Your task to perform on an android device: turn off notifications settings in the gmail app Image 0: 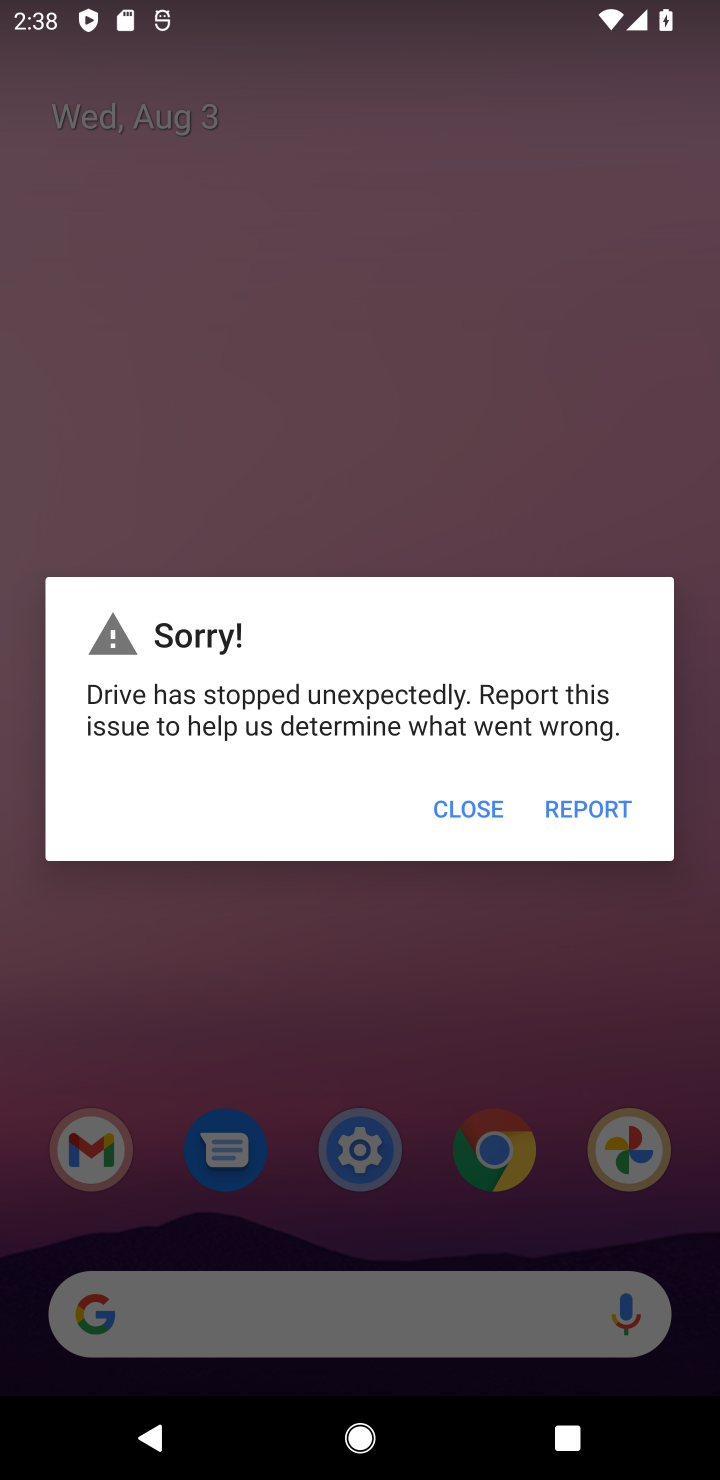
Step 0: press back button
Your task to perform on an android device: turn off notifications settings in the gmail app Image 1: 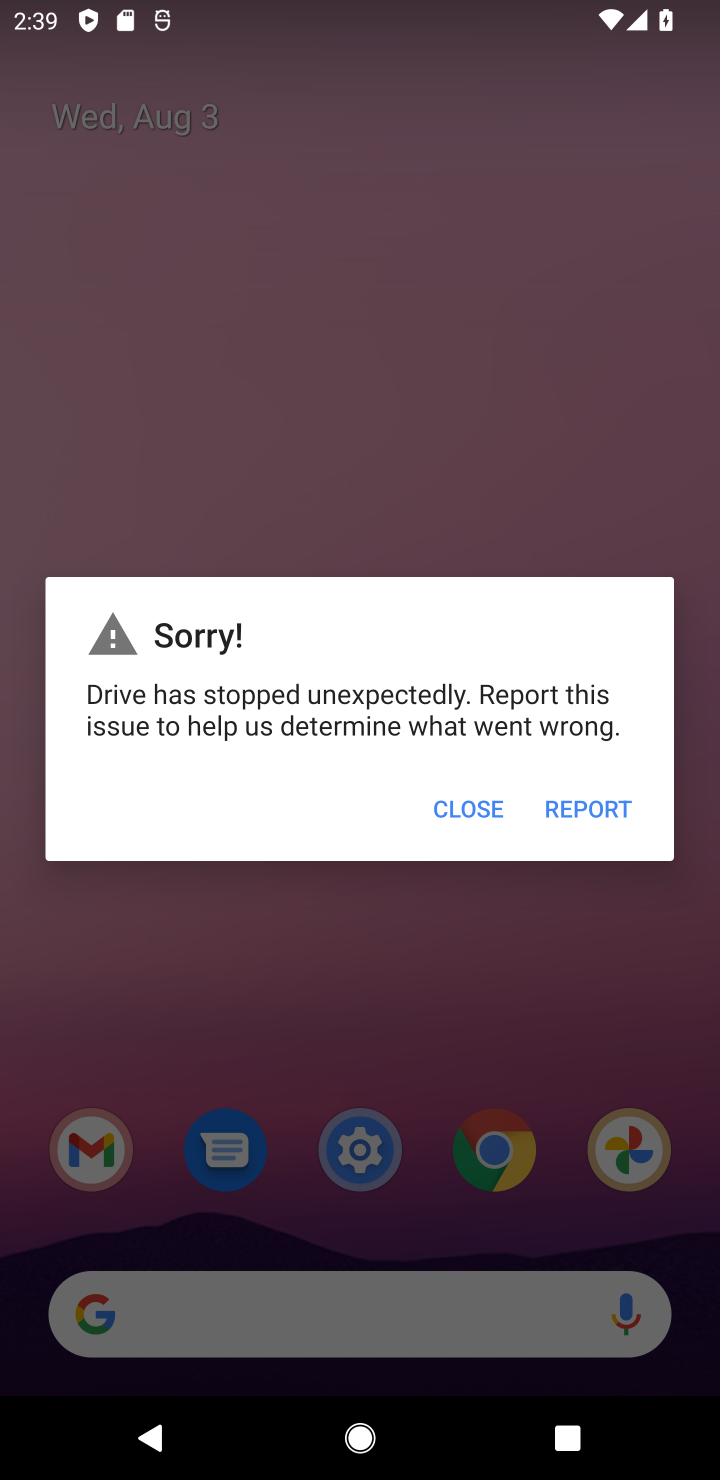
Step 1: click (457, 821)
Your task to perform on an android device: turn off notifications settings in the gmail app Image 2: 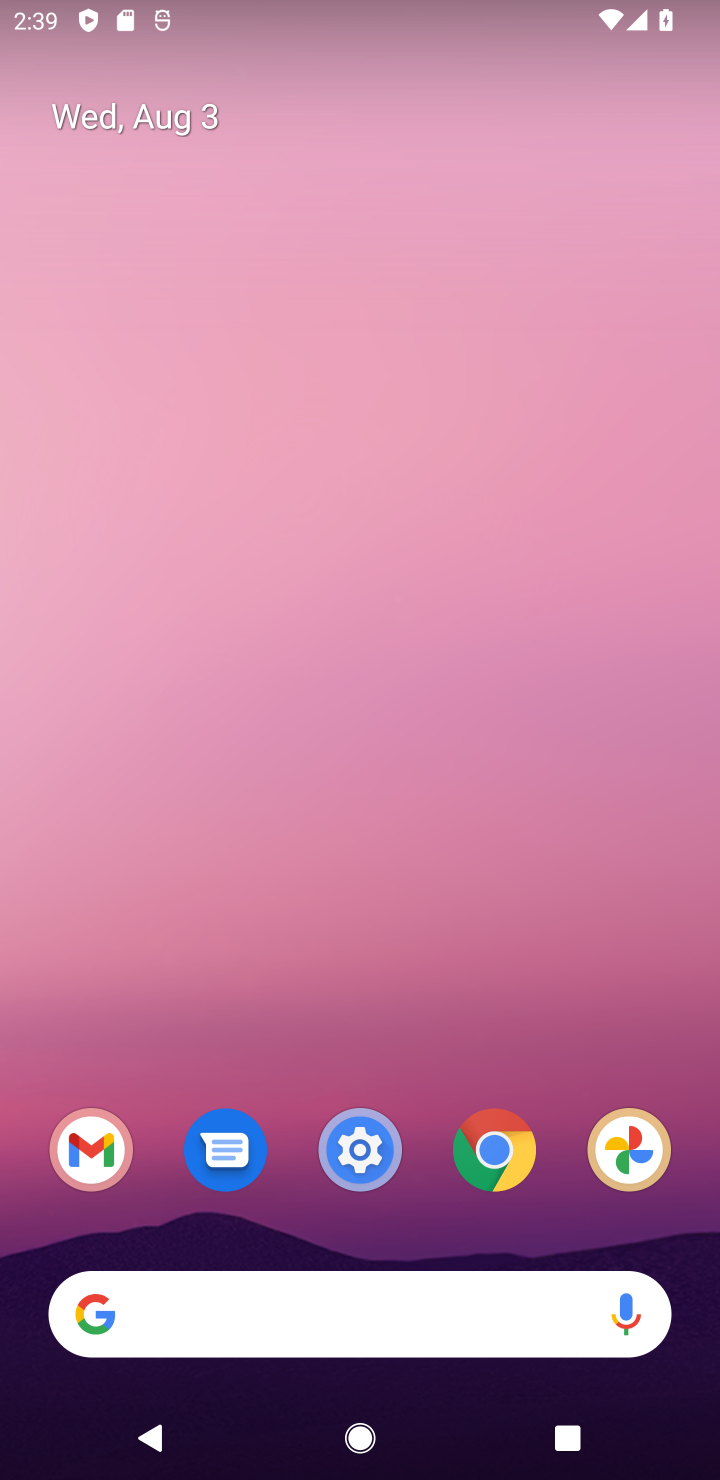
Step 2: click (100, 1191)
Your task to perform on an android device: turn off notifications settings in the gmail app Image 3: 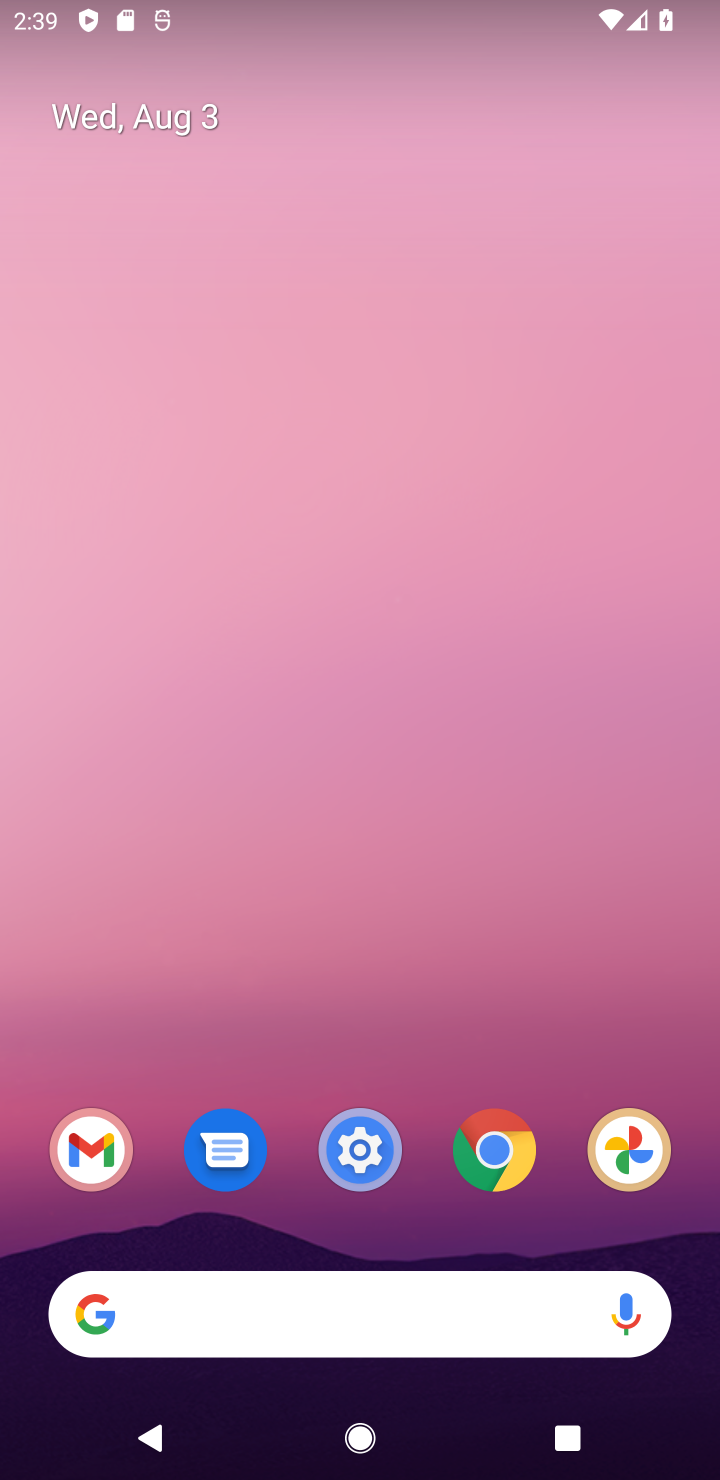
Step 3: click (76, 1149)
Your task to perform on an android device: turn off notifications settings in the gmail app Image 4: 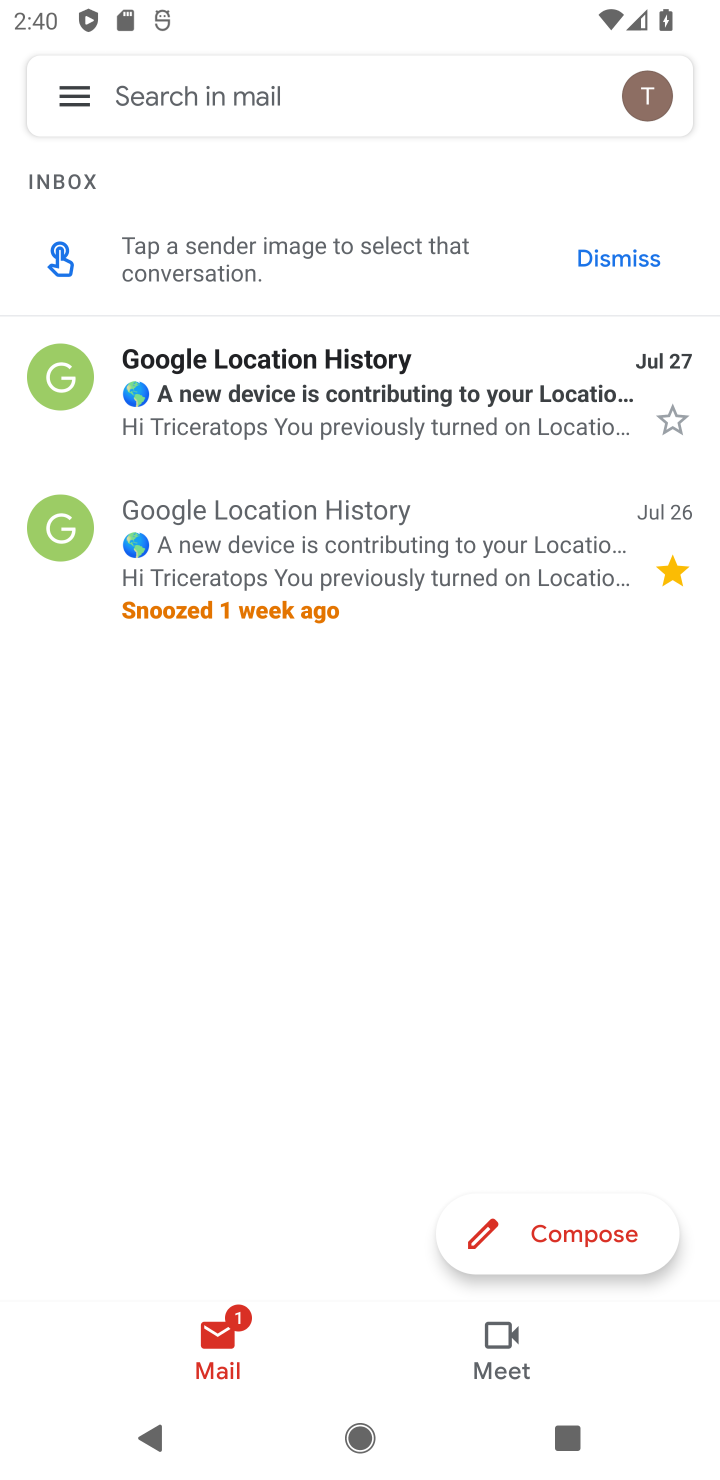
Step 4: click (72, 91)
Your task to perform on an android device: turn off notifications settings in the gmail app Image 5: 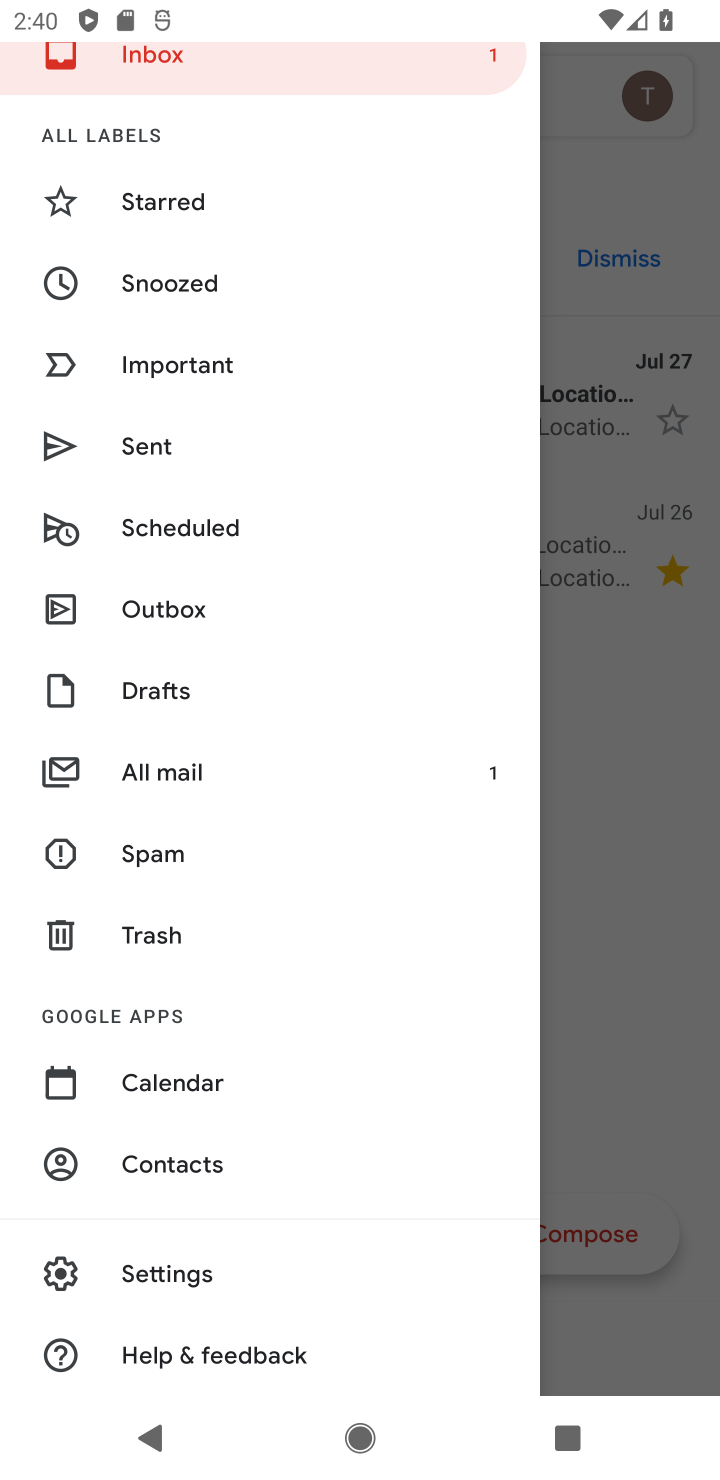
Step 5: click (181, 1268)
Your task to perform on an android device: turn off notifications settings in the gmail app Image 6: 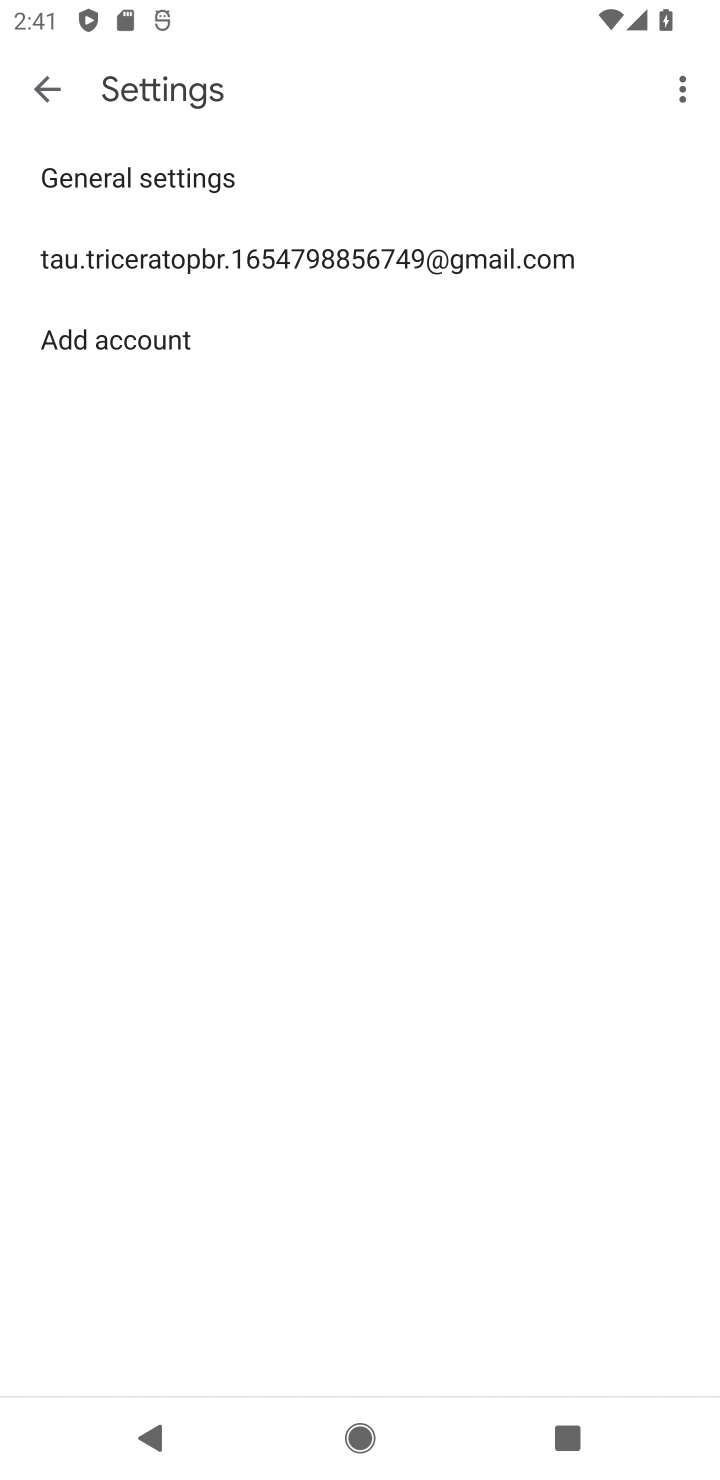
Step 6: click (232, 254)
Your task to perform on an android device: turn off notifications settings in the gmail app Image 7: 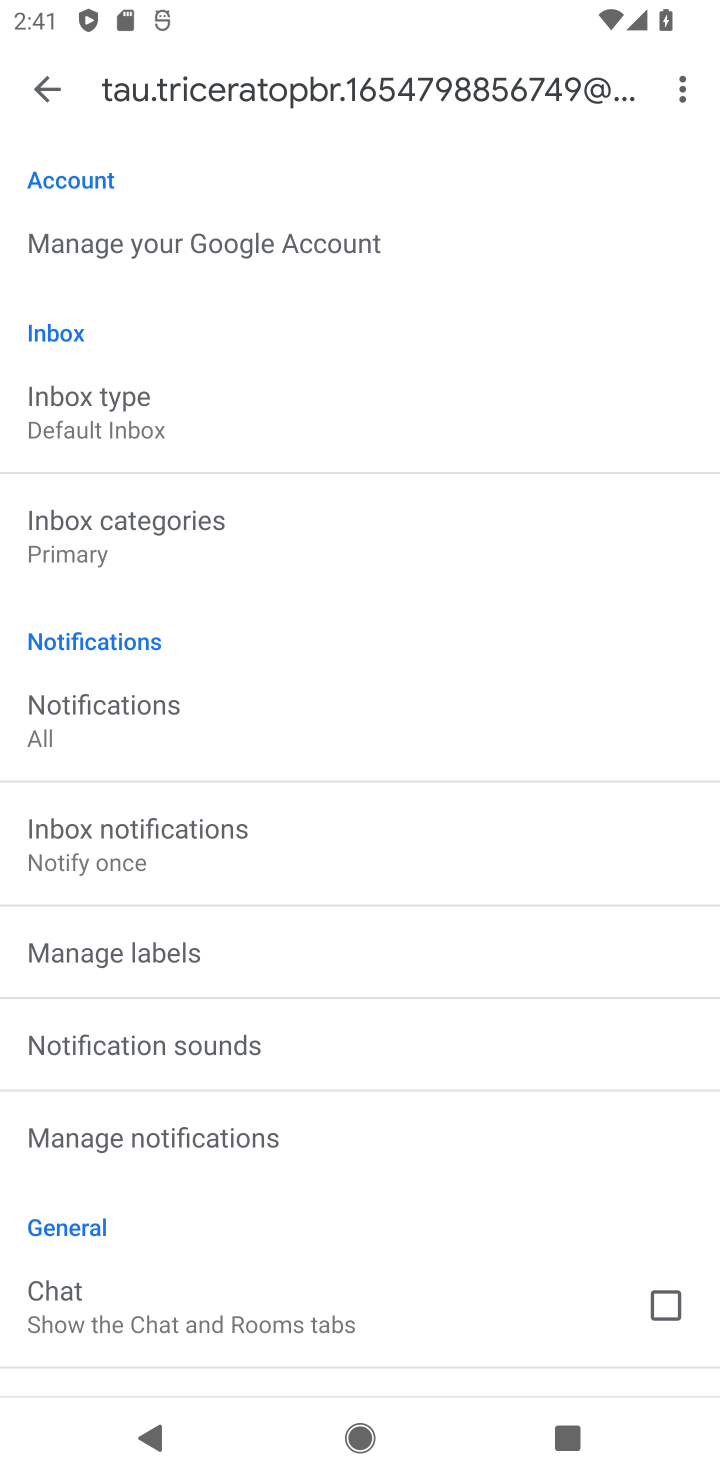
Step 7: click (181, 1117)
Your task to perform on an android device: turn off notifications settings in the gmail app Image 8: 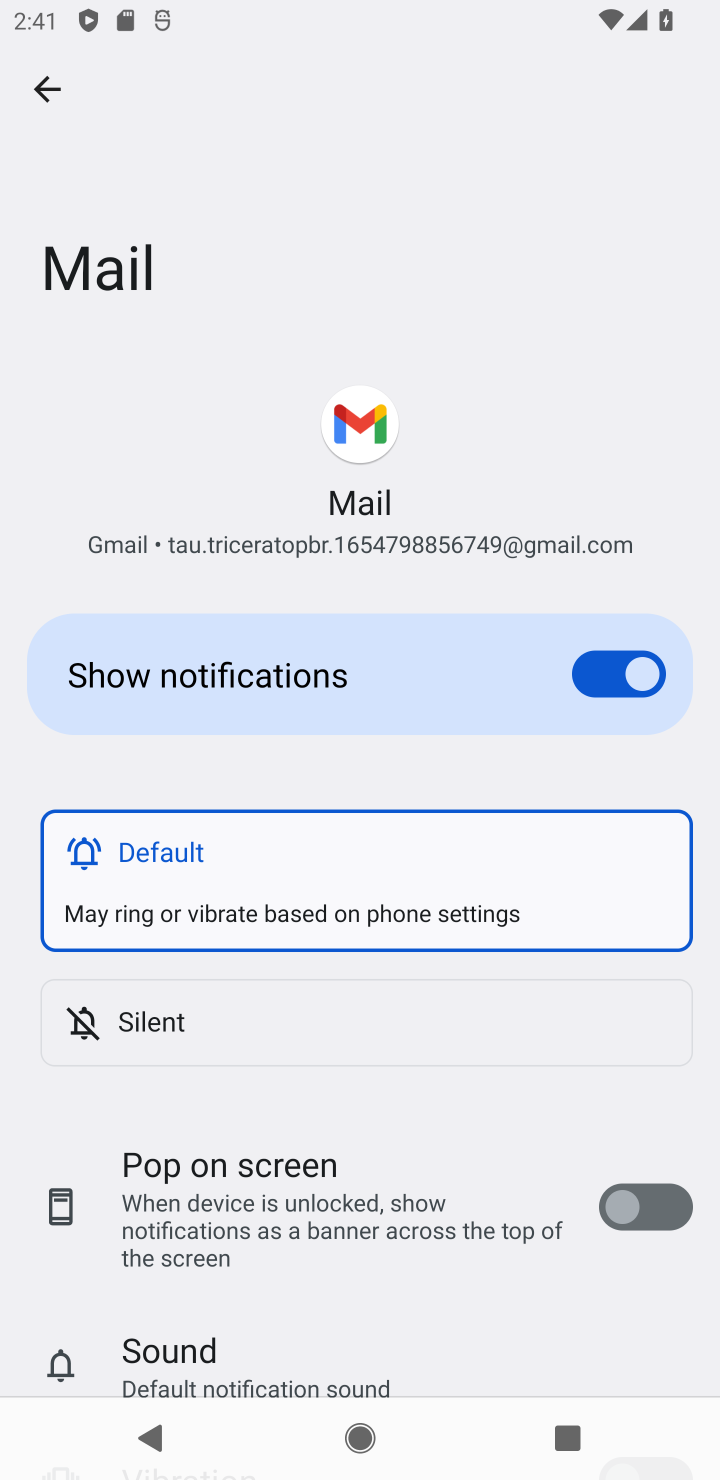
Step 8: click (630, 677)
Your task to perform on an android device: turn off notifications settings in the gmail app Image 9: 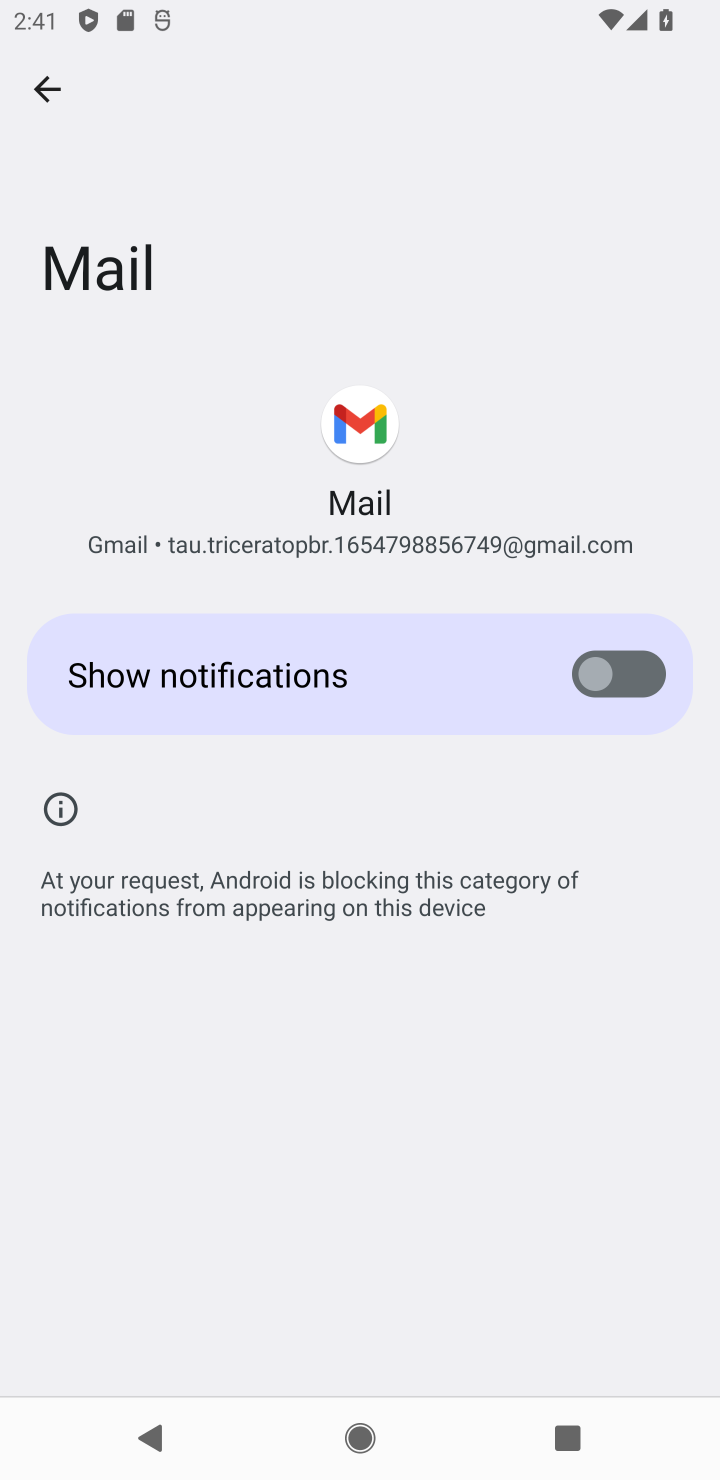
Step 9: task complete